Your task to perform on an android device: turn on wifi Image 0: 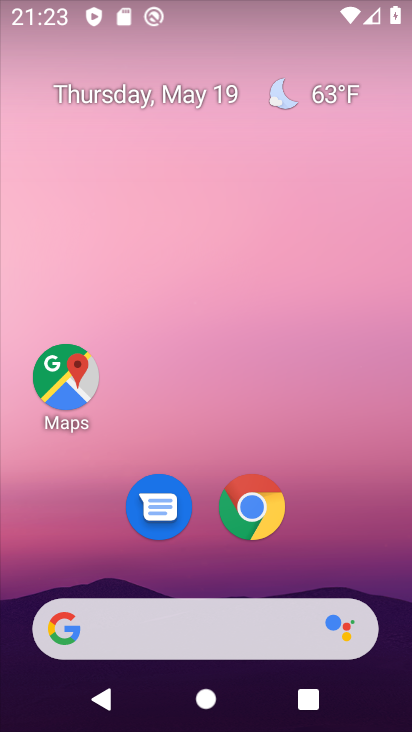
Step 0: drag from (367, 566) to (338, 140)
Your task to perform on an android device: turn on wifi Image 1: 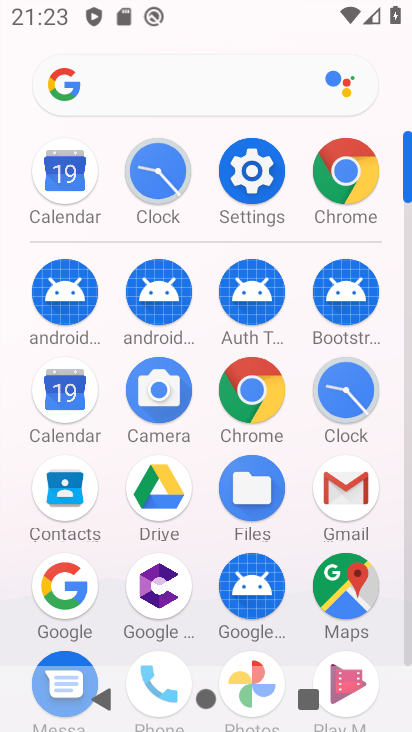
Step 1: click (256, 184)
Your task to perform on an android device: turn on wifi Image 2: 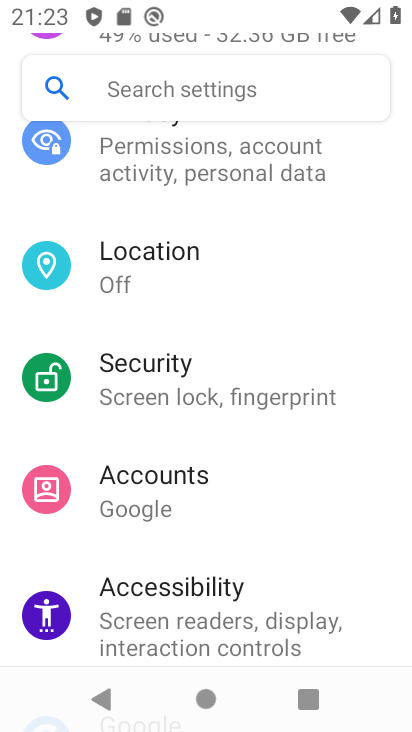
Step 2: drag from (258, 186) to (169, 693)
Your task to perform on an android device: turn on wifi Image 3: 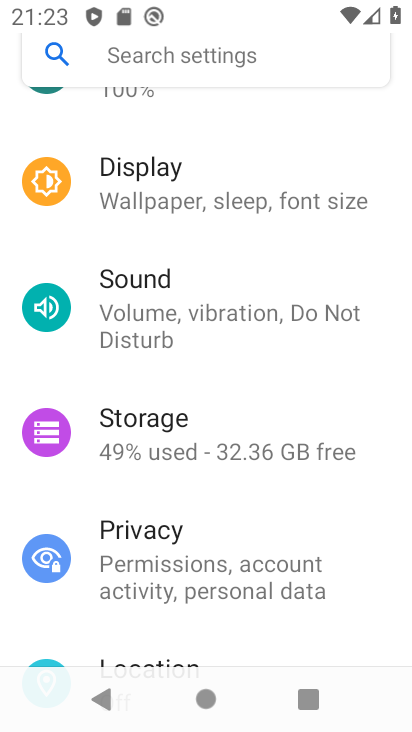
Step 3: drag from (213, 170) to (170, 637)
Your task to perform on an android device: turn on wifi Image 4: 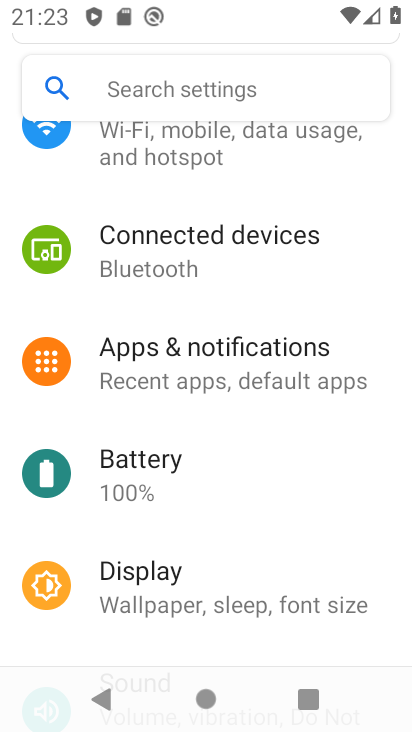
Step 4: drag from (218, 196) to (213, 390)
Your task to perform on an android device: turn on wifi Image 5: 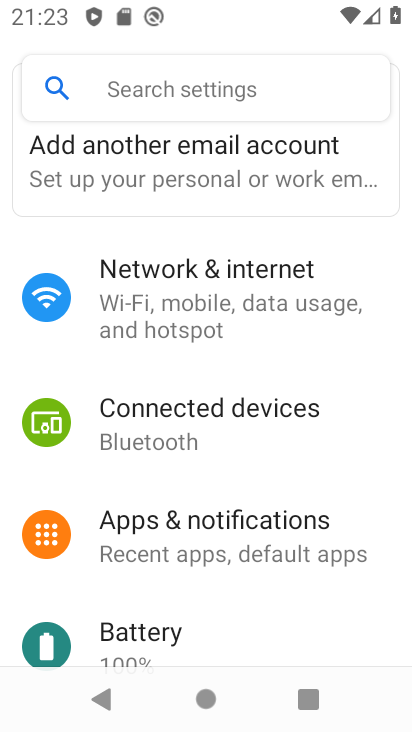
Step 5: click (205, 329)
Your task to perform on an android device: turn on wifi Image 6: 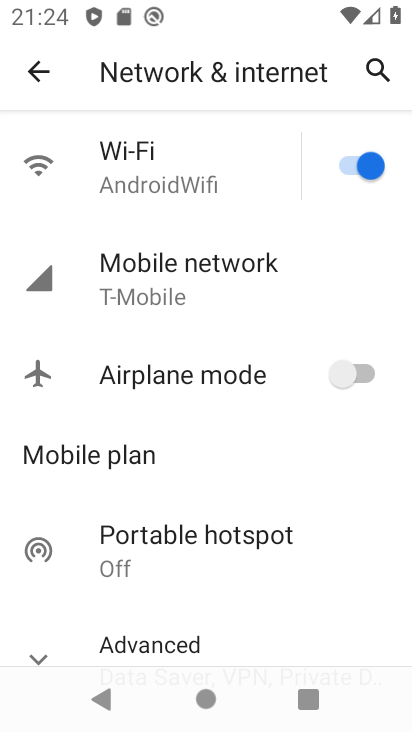
Step 6: task complete